Your task to perform on an android device: Find coffee shops on Maps Image 0: 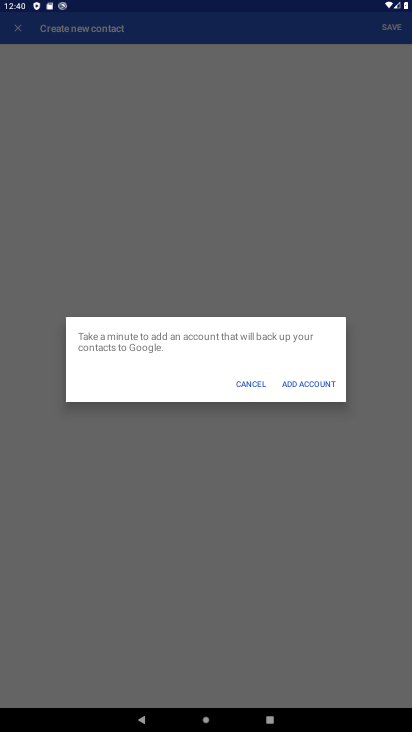
Step 0: press home button
Your task to perform on an android device: Find coffee shops on Maps Image 1: 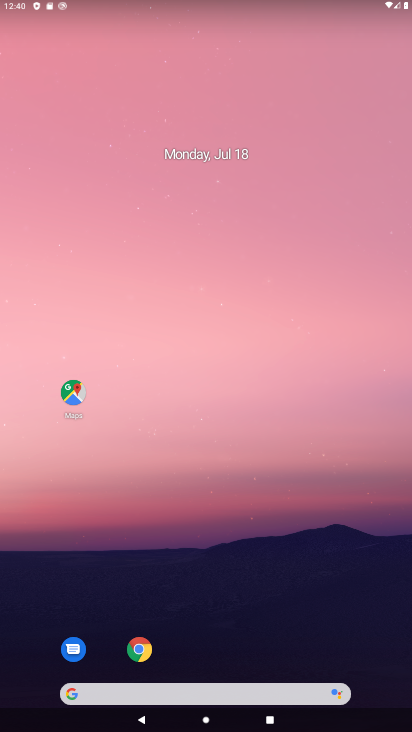
Step 1: click (67, 392)
Your task to perform on an android device: Find coffee shops on Maps Image 2: 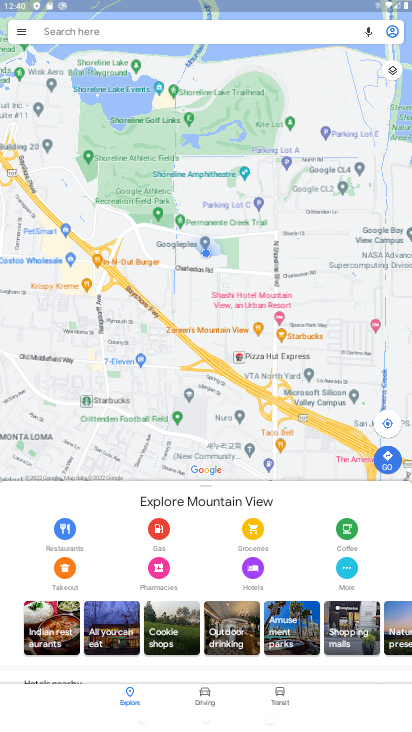
Step 2: click (49, 28)
Your task to perform on an android device: Find coffee shops on Maps Image 3: 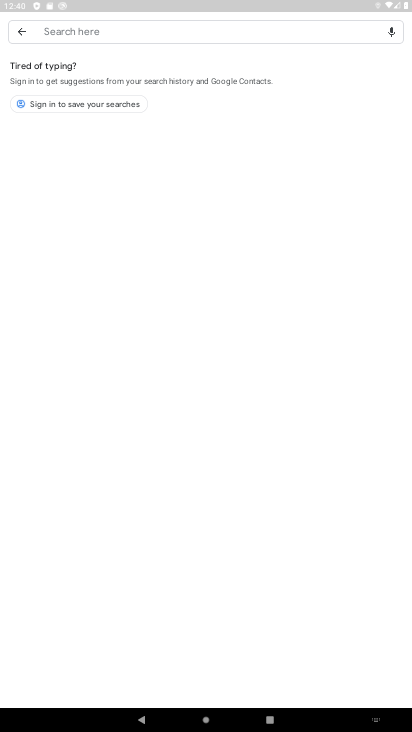
Step 3: type "coffee shops"
Your task to perform on an android device: Find coffee shops on Maps Image 4: 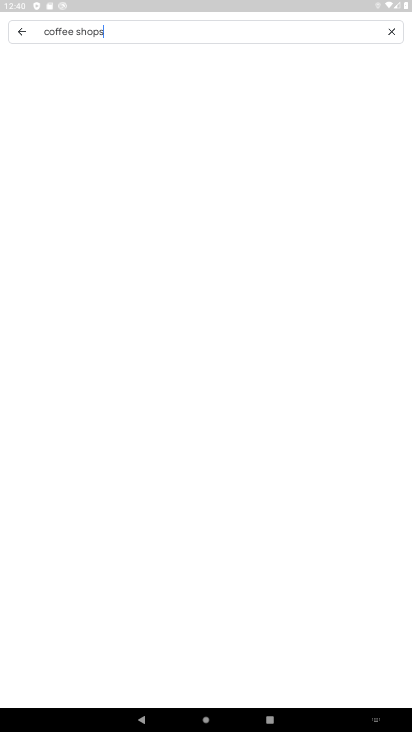
Step 4: type ""
Your task to perform on an android device: Find coffee shops on Maps Image 5: 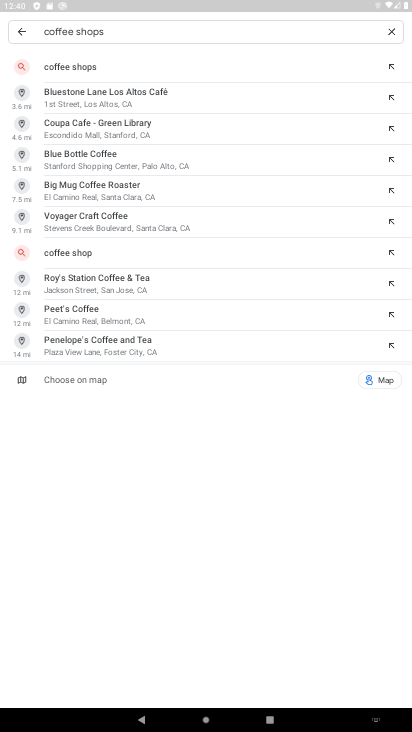
Step 5: click (84, 66)
Your task to perform on an android device: Find coffee shops on Maps Image 6: 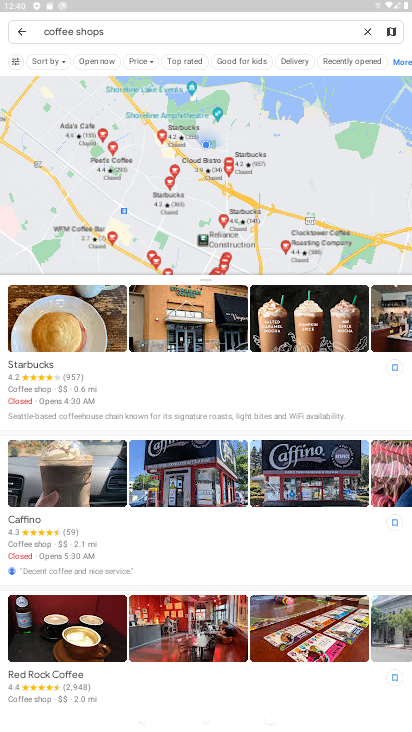
Step 6: task complete